Your task to perform on an android device: toggle data saver in the chrome app Image 0: 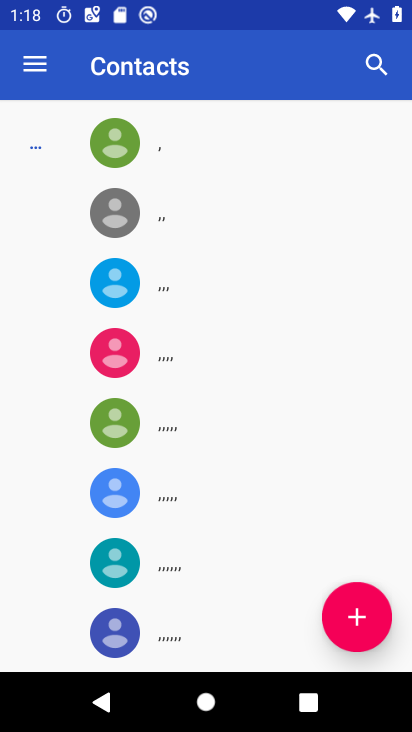
Step 0: press home button
Your task to perform on an android device: toggle data saver in the chrome app Image 1: 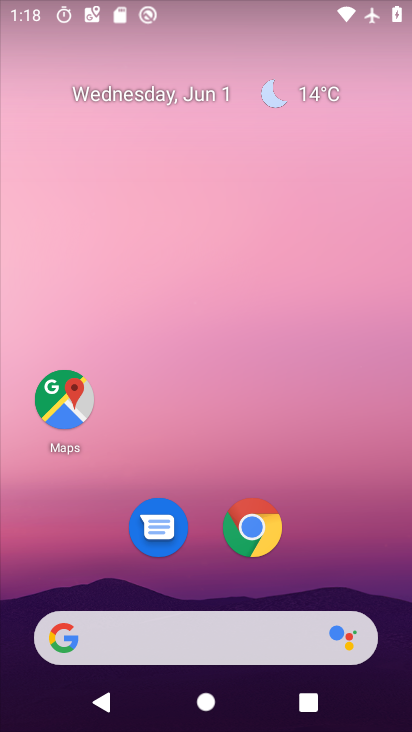
Step 1: click (313, 537)
Your task to perform on an android device: toggle data saver in the chrome app Image 2: 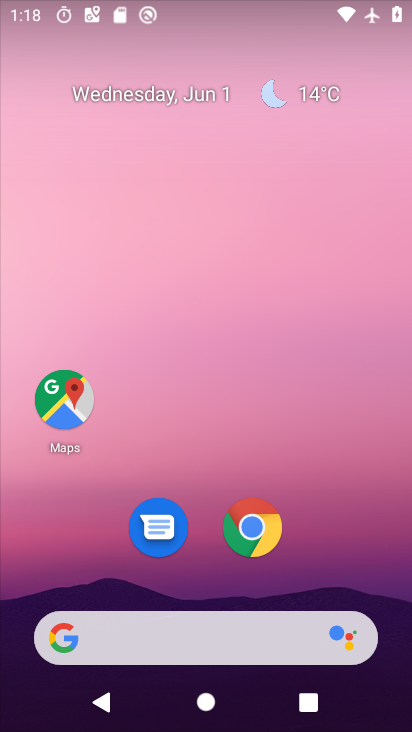
Step 2: click (252, 523)
Your task to perform on an android device: toggle data saver in the chrome app Image 3: 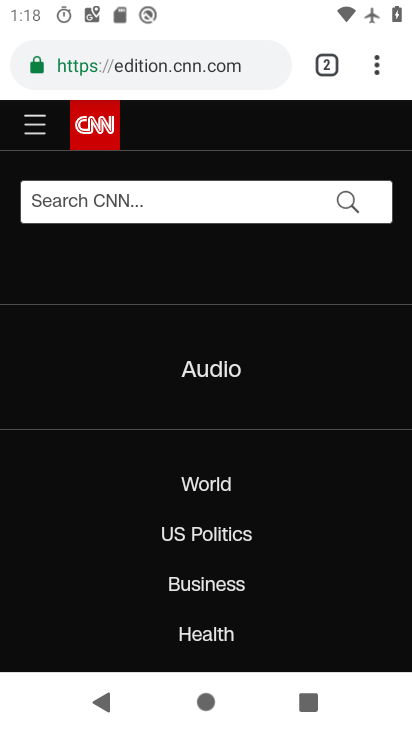
Step 3: click (376, 67)
Your task to perform on an android device: toggle data saver in the chrome app Image 4: 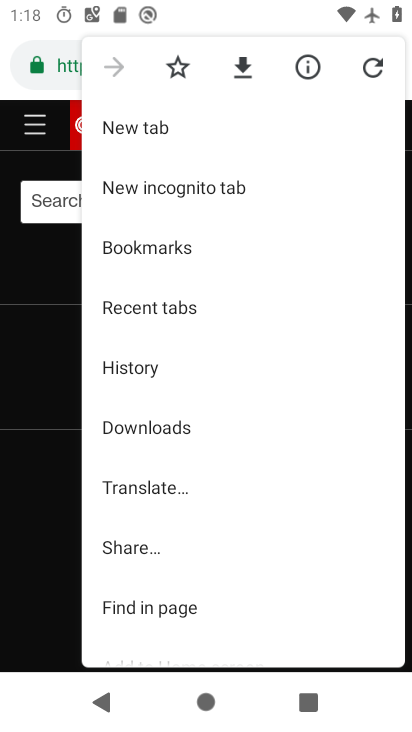
Step 4: drag from (199, 560) to (202, 226)
Your task to perform on an android device: toggle data saver in the chrome app Image 5: 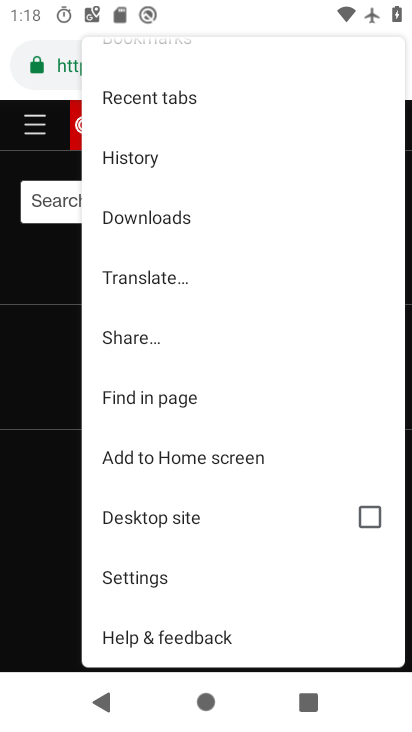
Step 5: click (142, 579)
Your task to perform on an android device: toggle data saver in the chrome app Image 6: 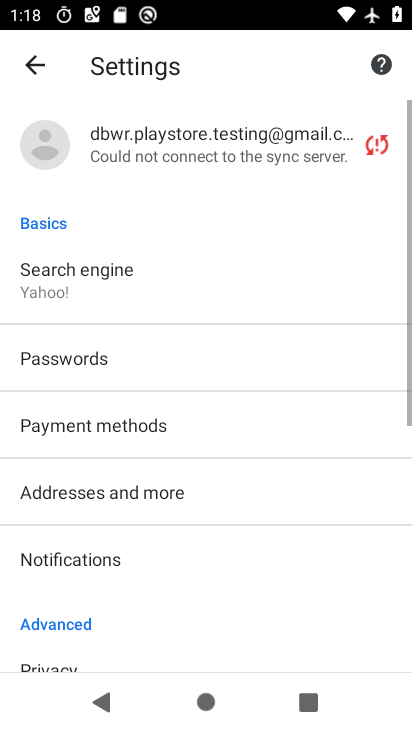
Step 6: drag from (142, 579) to (151, 264)
Your task to perform on an android device: toggle data saver in the chrome app Image 7: 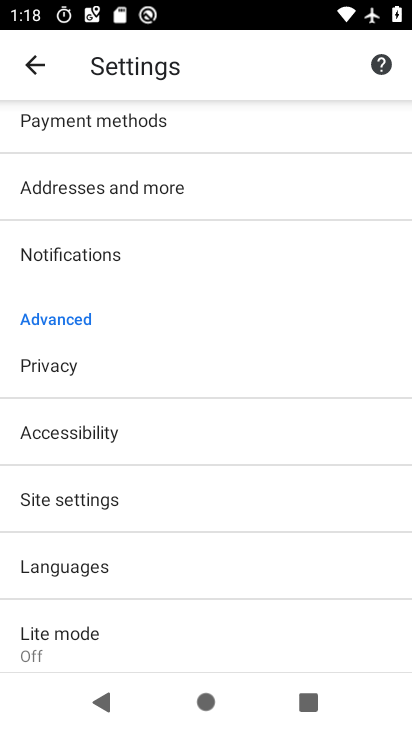
Step 7: drag from (107, 585) to (141, 312)
Your task to perform on an android device: toggle data saver in the chrome app Image 8: 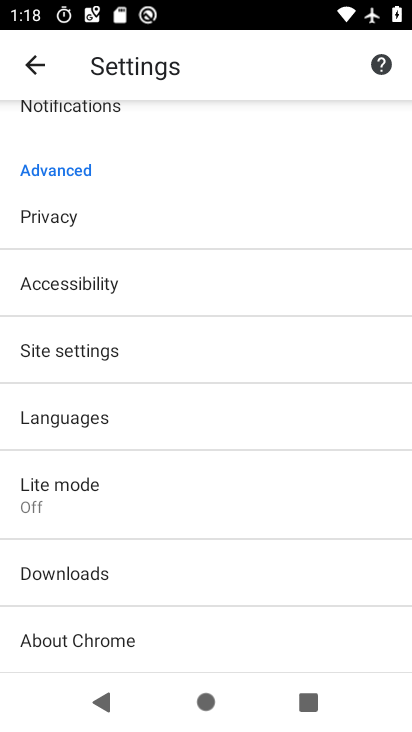
Step 8: click (85, 490)
Your task to perform on an android device: toggle data saver in the chrome app Image 9: 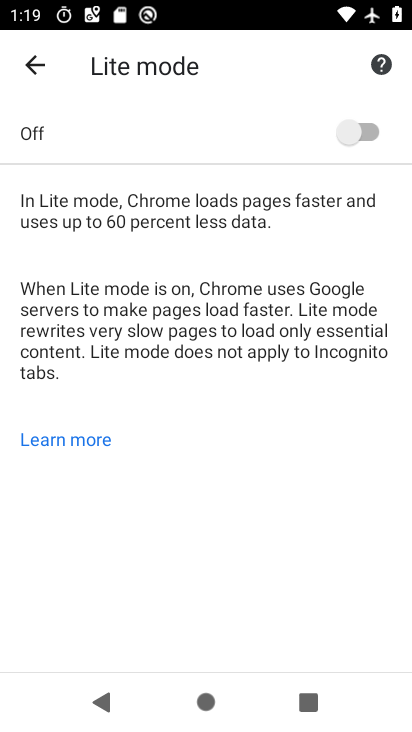
Step 9: click (362, 125)
Your task to perform on an android device: toggle data saver in the chrome app Image 10: 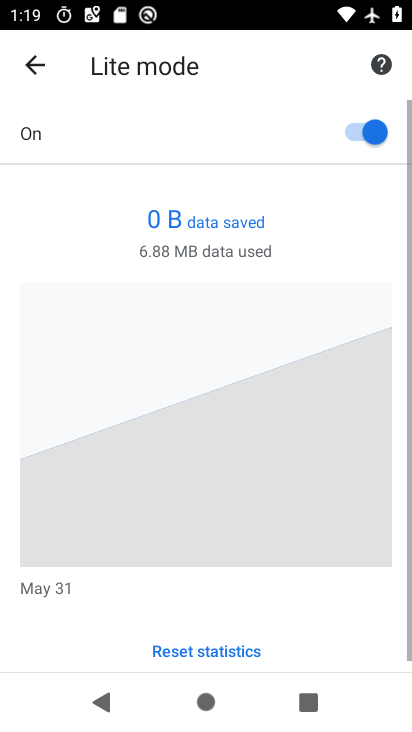
Step 10: task complete